Your task to perform on an android device: open app "Pinterest" (install if not already installed) Image 0: 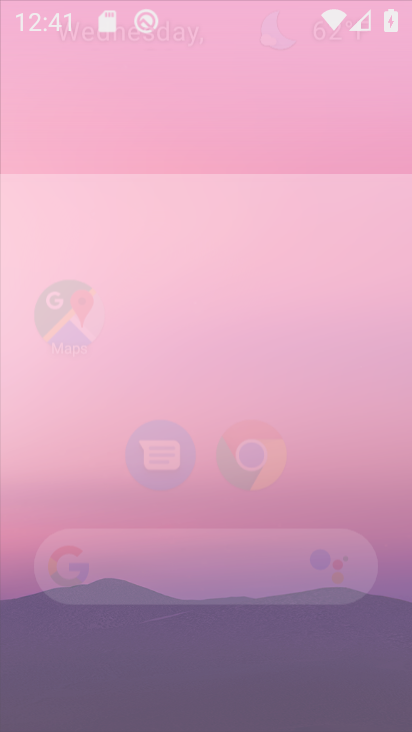
Step 0: drag from (200, 555) to (224, 223)
Your task to perform on an android device: open app "Pinterest" (install if not already installed) Image 1: 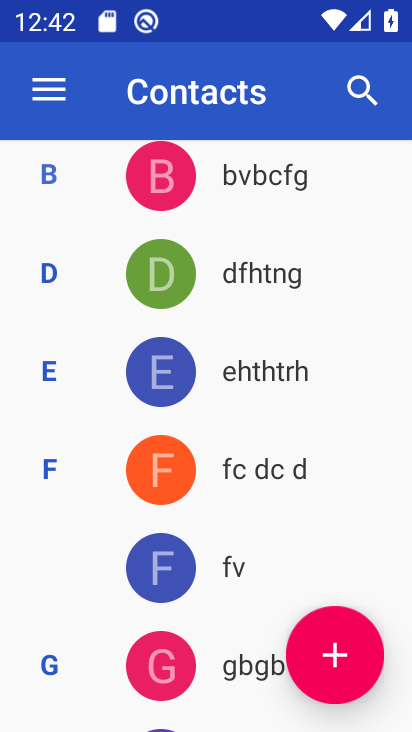
Step 1: press home button
Your task to perform on an android device: open app "Pinterest" (install if not already installed) Image 2: 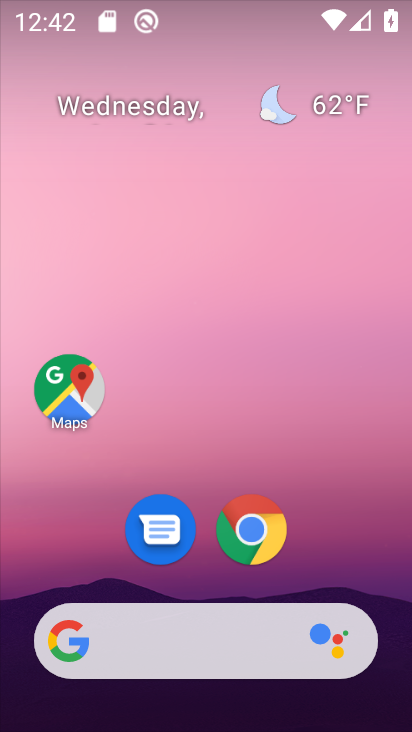
Step 2: drag from (194, 590) to (226, 193)
Your task to perform on an android device: open app "Pinterest" (install if not already installed) Image 3: 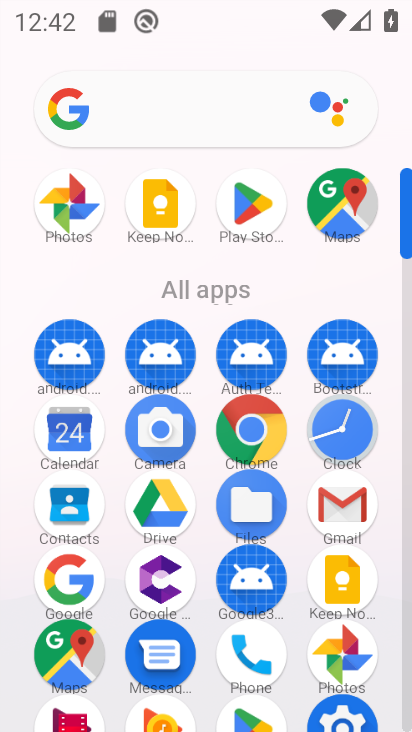
Step 3: click (247, 186)
Your task to perform on an android device: open app "Pinterest" (install if not already installed) Image 4: 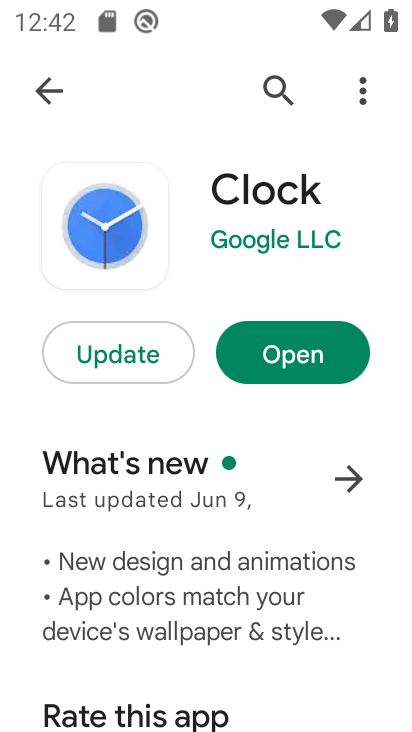
Step 4: click (21, 82)
Your task to perform on an android device: open app "Pinterest" (install if not already installed) Image 5: 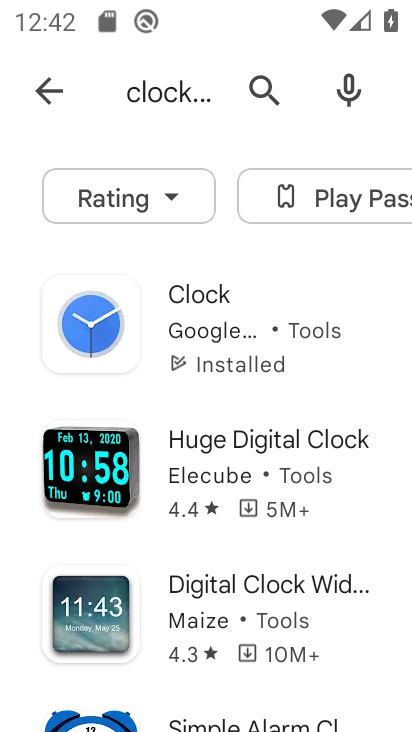
Step 5: click (259, 82)
Your task to perform on an android device: open app "Pinterest" (install if not already installed) Image 6: 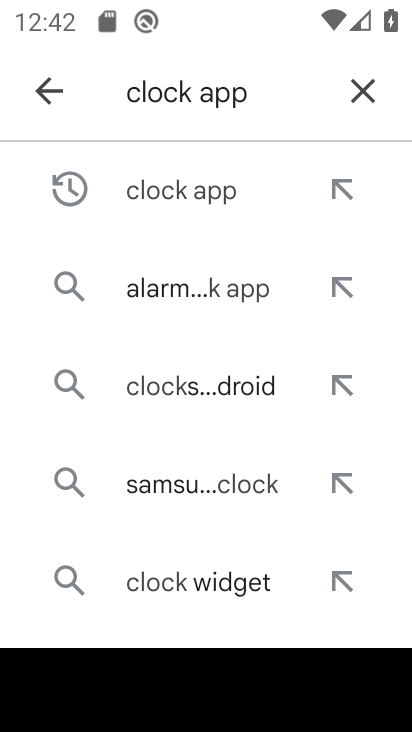
Step 6: click (348, 94)
Your task to perform on an android device: open app "Pinterest" (install if not already installed) Image 7: 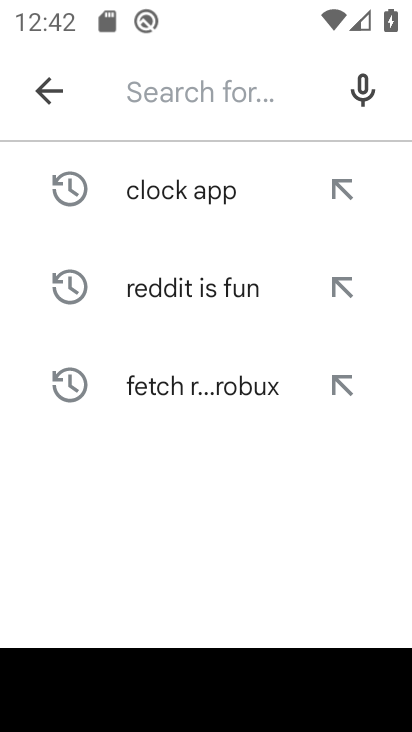
Step 7: click (268, 81)
Your task to perform on an android device: open app "Pinterest" (install if not already installed) Image 8: 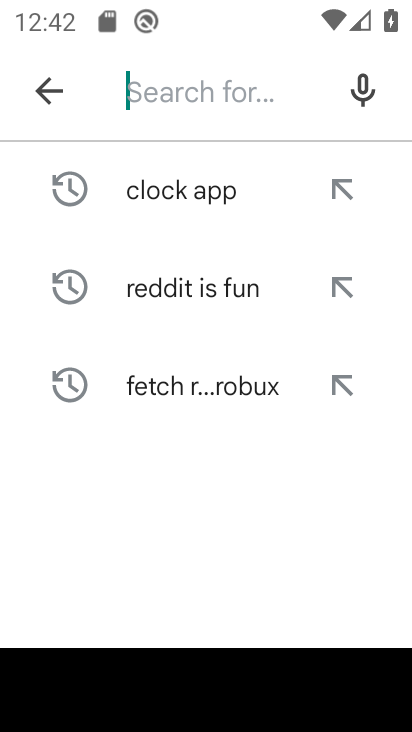
Step 8: type "pinterest "
Your task to perform on an android device: open app "Pinterest" (install if not already installed) Image 9: 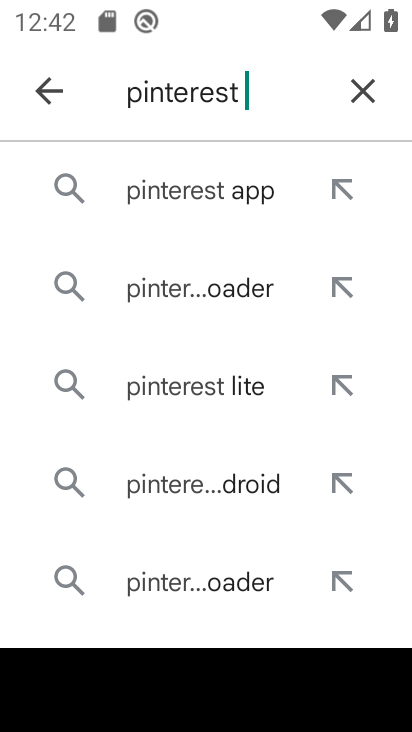
Step 9: click (218, 192)
Your task to perform on an android device: open app "Pinterest" (install if not already installed) Image 10: 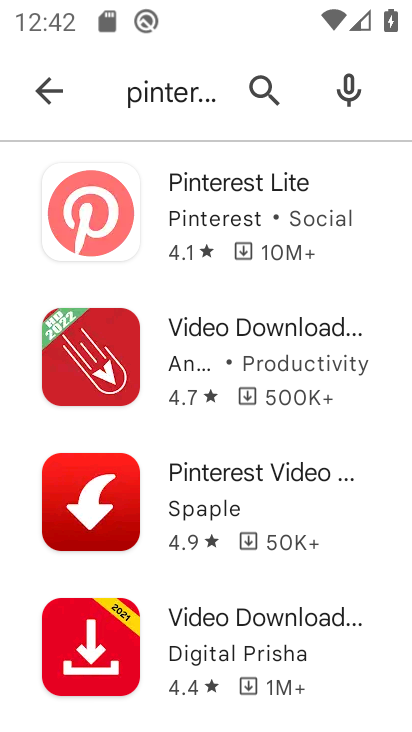
Step 10: click (220, 192)
Your task to perform on an android device: open app "Pinterest" (install if not already installed) Image 11: 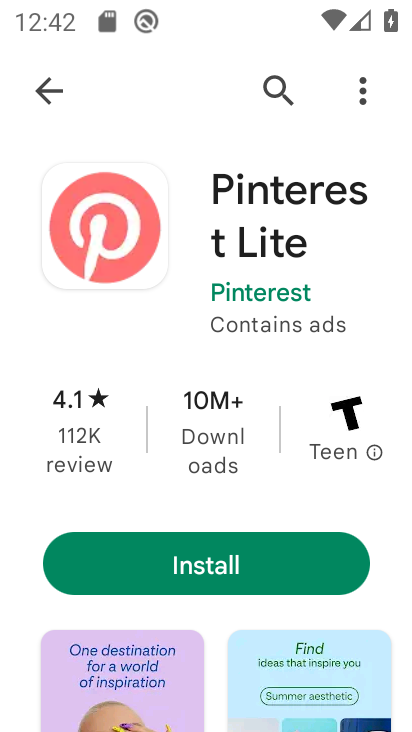
Step 11: click (241, 549)
Your task to perform on an android device: open app "Pinterest" (install if not already installed) Image 12: 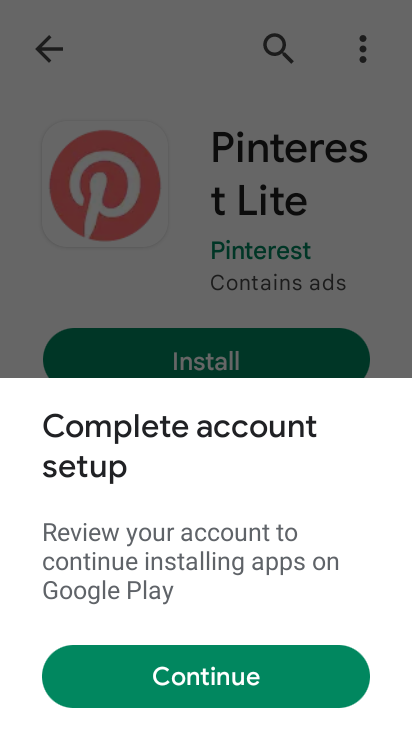
Step 12: task complete